Your task to perform on an android device: Do I have any events this weekend? Image 0: 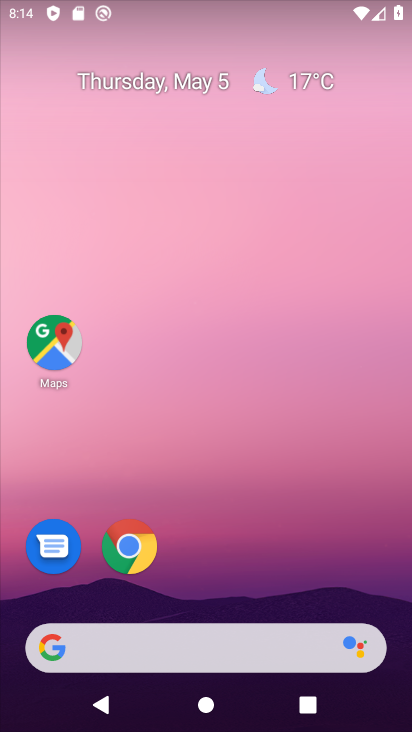
Step 0: drag from (186, 655) to (324, 195)
Your task to perform on an android device: Do I have any events this weekend? Image 1: 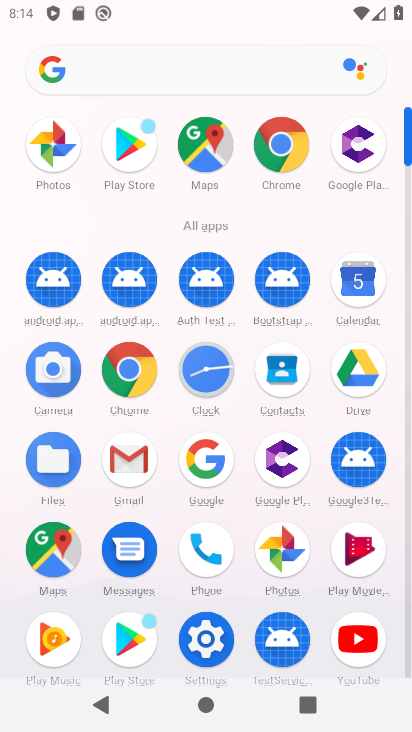
Step 1: click (358, 289)
Your task to perform on an android device: Do I have any events this weekend? Image 2: 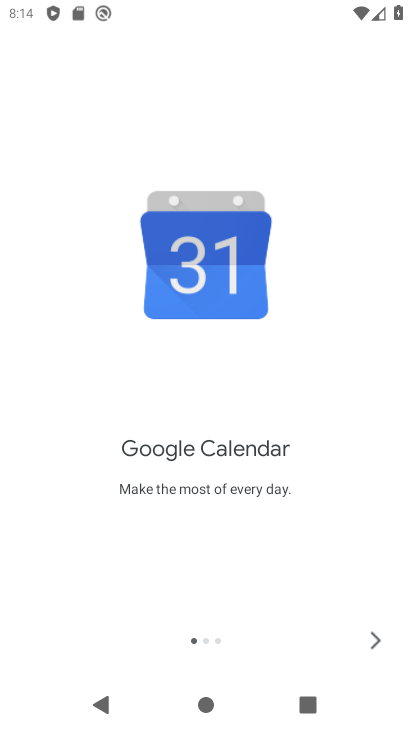
Step 2: click (374, 641)
Your task to perform on an android device: Do I have any events this weekend? Image 3: 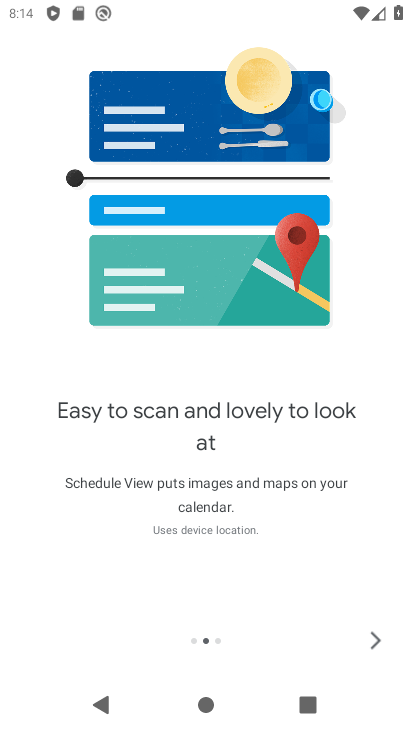
Step 3: click (374, 641)
Your task to perform on an android device: Do I have any events this weekend? Image 4: 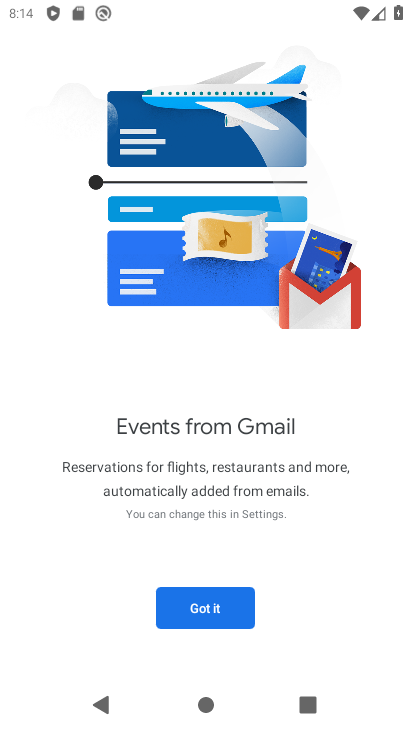
Step 4: click (239, 612)
Your task to perform on an android device: Do I have any events this weekend? Image 5: 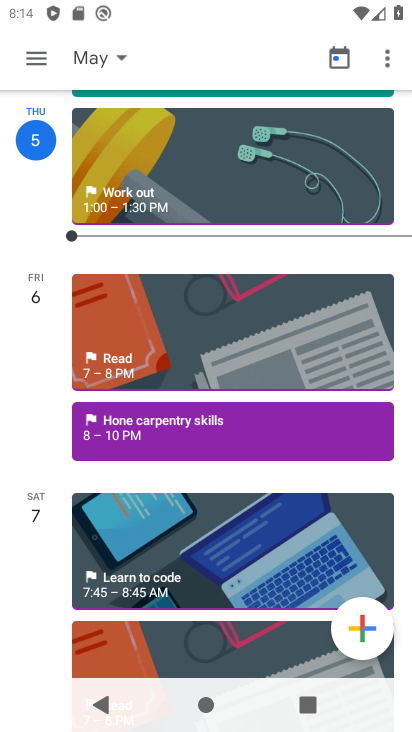
Step 5: click (90, 62)
Your task to perform on an android device: Do I have any events this weekend? Image 6: 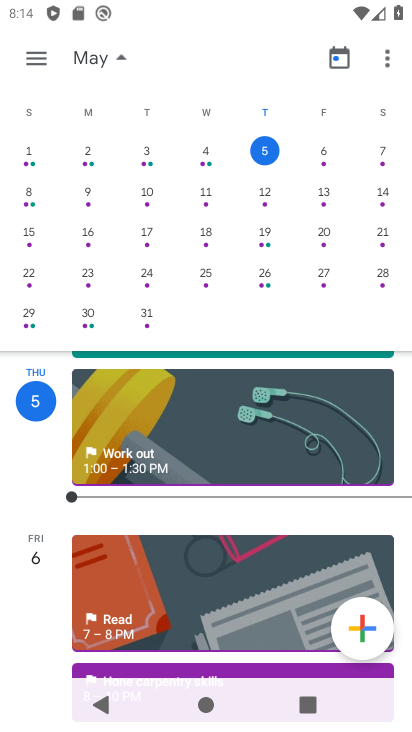
Step 6: click (383, 151)
Your task to perform on an android device: Do I have any events this weekend? Image 7: 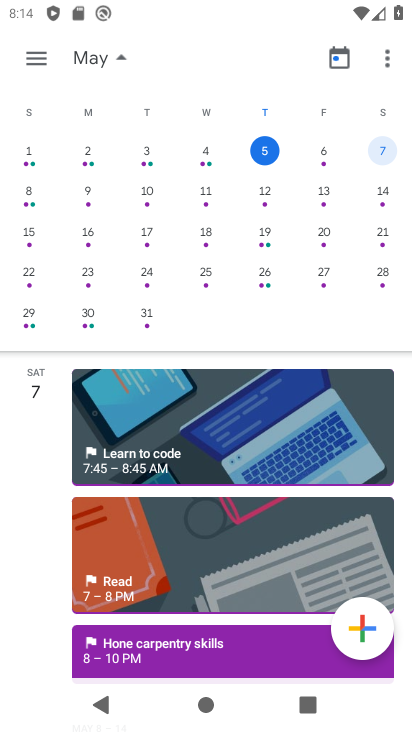
Step 7: click (29, 58)
Your task to perform on an android device: Do I have any events this weekend? Image 8: 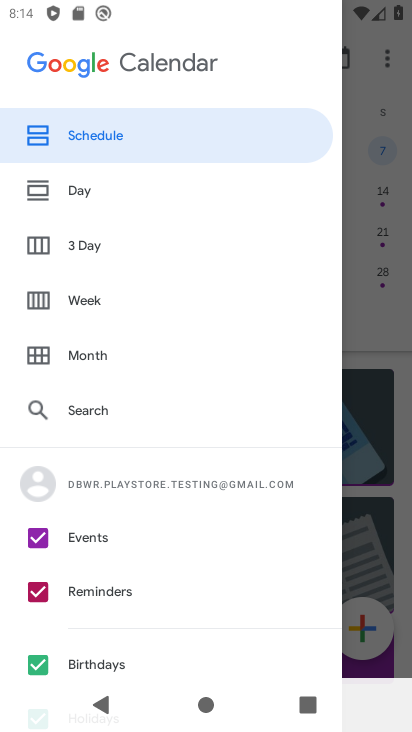
Step 8: click (94, 133)
Your task to perform on an android device: Do I have any events this weekend? Image 9: 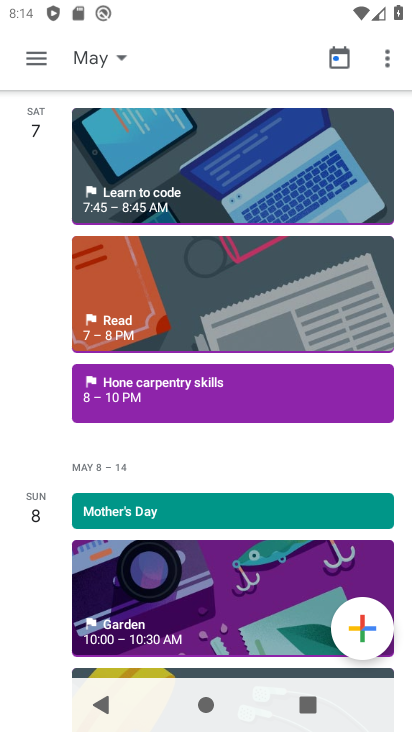
Step 9: click (142, 386)
Your task to perform on an android device: Do I have any events this weekend? Image 10: 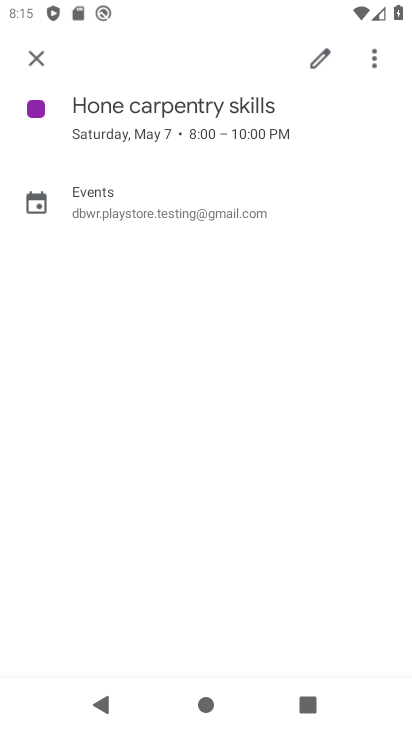
Step 10: task complete